Your task to perform on an android device: create a new album in the google photos Image 0: 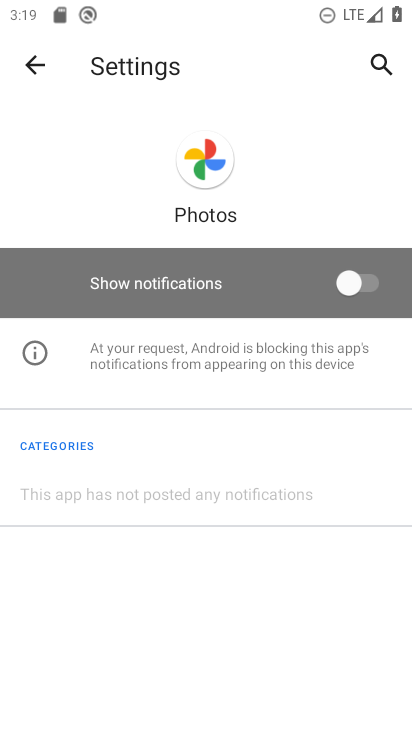
Step 0: press home button
Your task to perform on an android device: create a new album in the google photos Image 1: 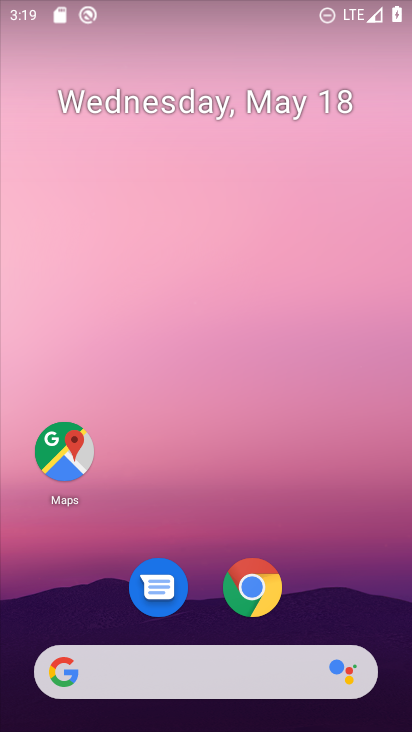
Step 1: drag from (202, 646) to (93, 18)
Your task to perform on an android device: create a new album in the google photos Image 2: 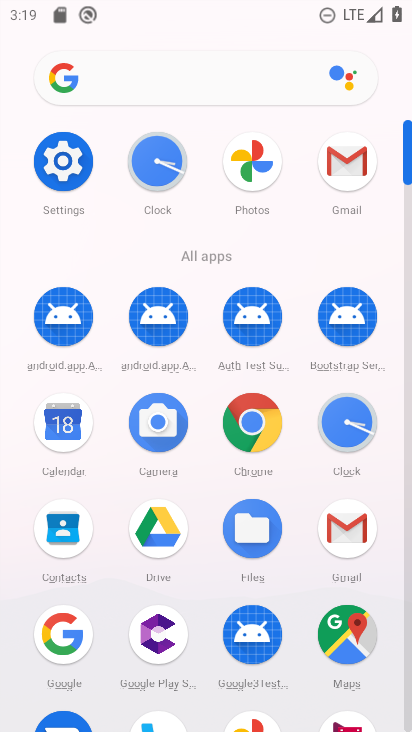
Step 2: click (254, 169)
Your task to perform on an android device: create a new album in the google photos Image 3: 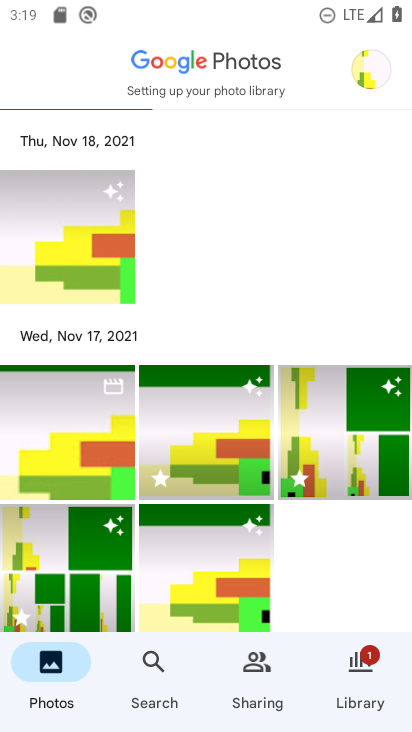
Step 3: click (367, 685)
Your task to perform on an android device: create a new album in the google photos Image 4: 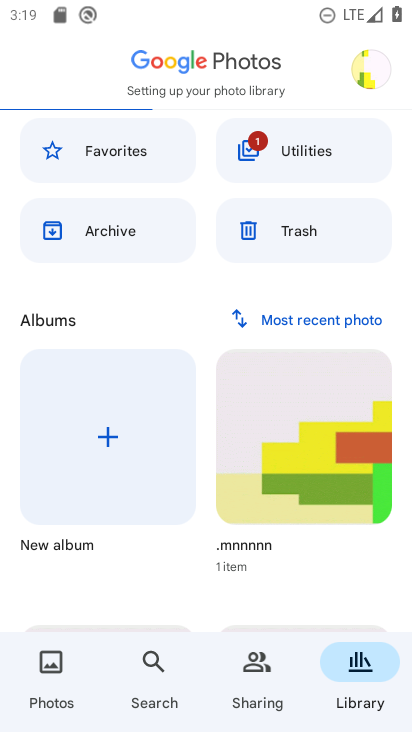
Step 4: click (125, 399)
Your task to perform on an android device: create a new album in the google photos Image 5: 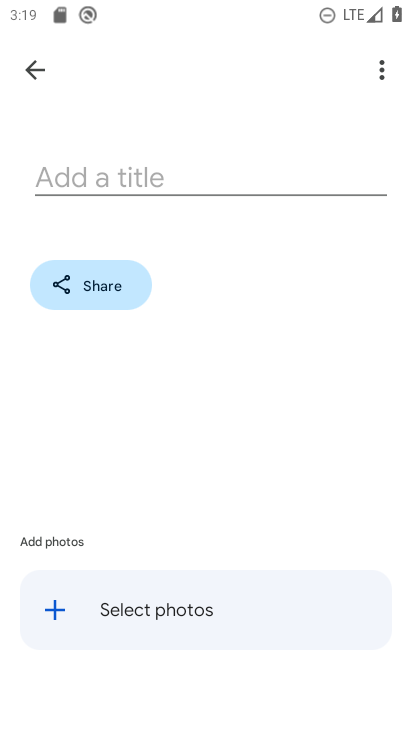
Step 5: click (233, 189)
Your task to perform on an android device: create a new album in the google photos Image 6: 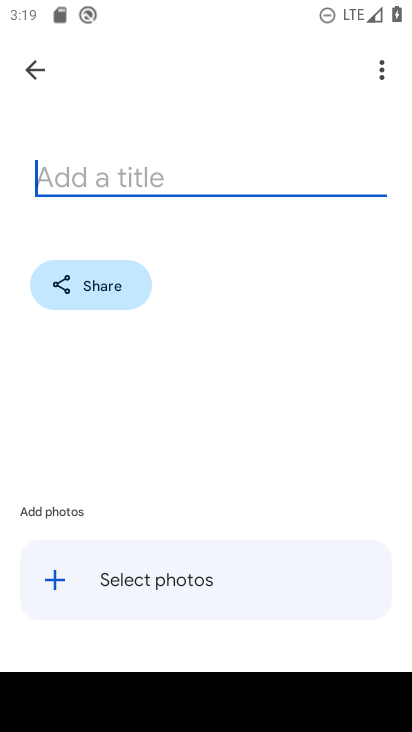
Step 6: type "cvcb"
Your task to perform on an android device: create a new album in the google photos Image 7: 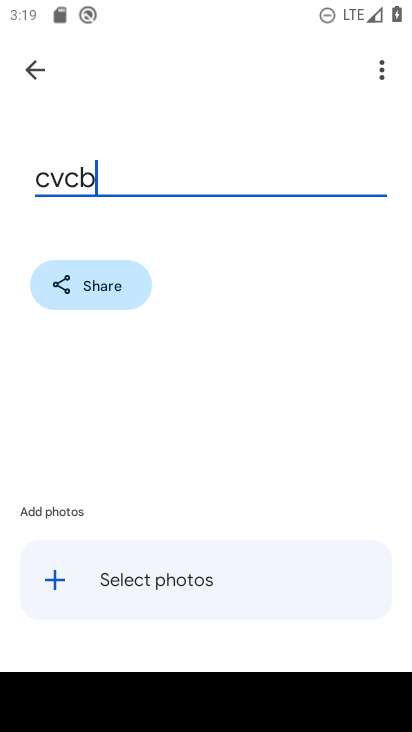
Step 7: click (199, 581)
Your task to perform on an android device: create a new album in the google photos Image 8: 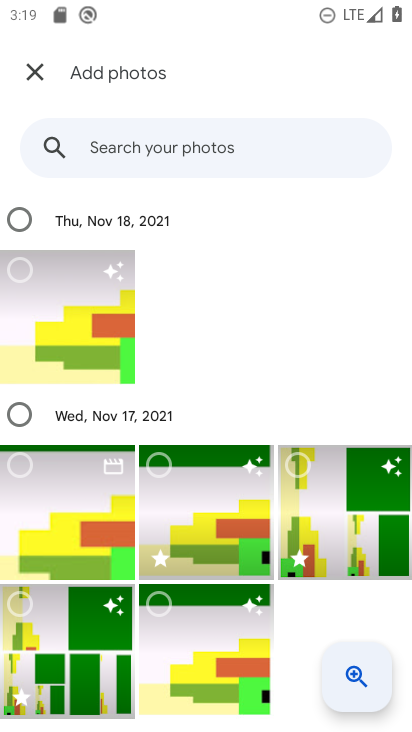
Step 8: click (14, 230)
Your task to perform on an android device: create a new album in the google photos Image 9: 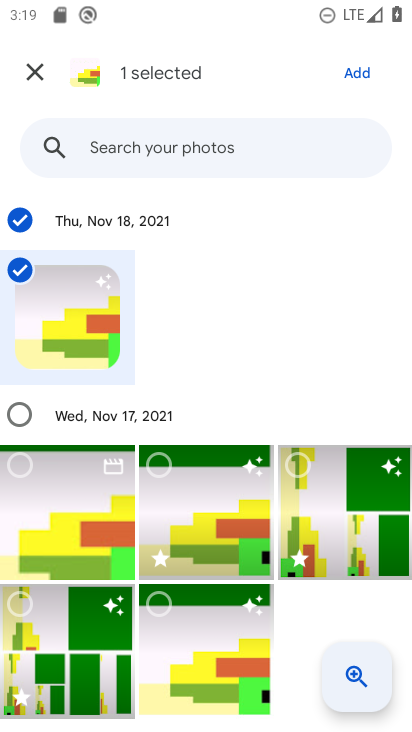
Step 9: click (31, 414)
Your task to perform on an android device: create a new album in the google photos Image 10: 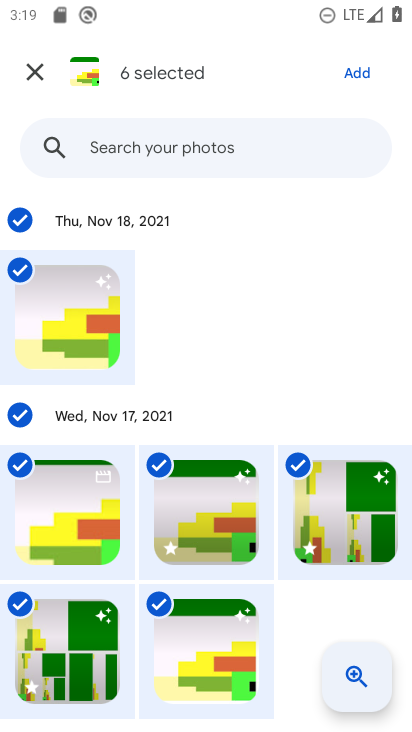
Step 10: click (357, 80)
Your task to perform on an android device: create a new album in the google photos Image 11: 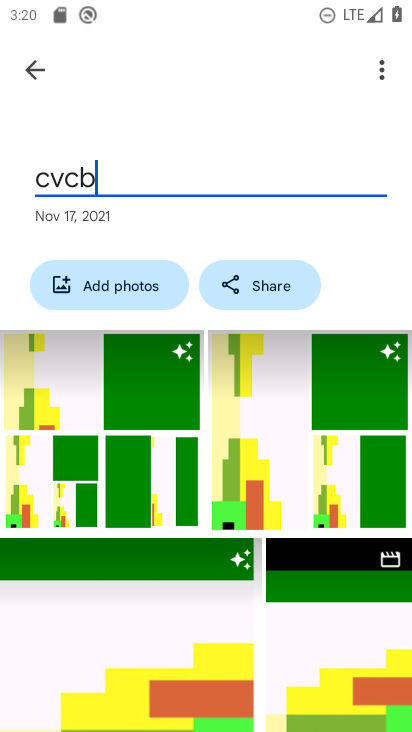
Step 11: task complete